Your task to perform on an android device: remove spam from my inbox in the gmail app Image 0: 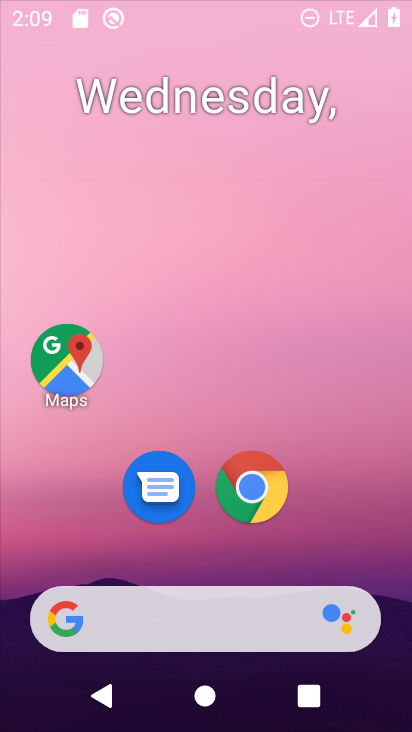
Step 0: click (220, 48)
Your task to perform on an android device: remove spam from my inbox in the gmail app Image 1: 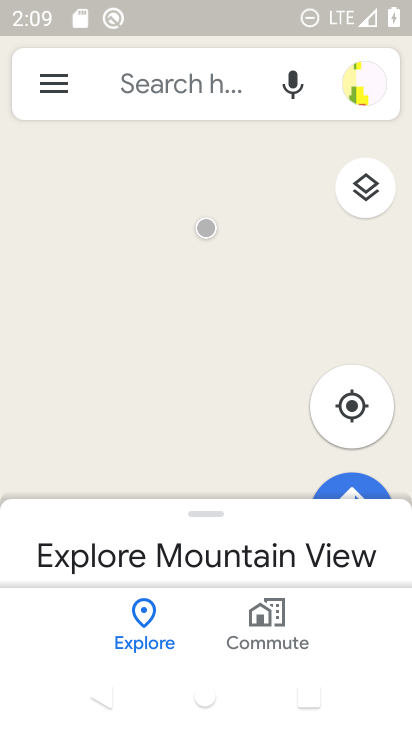
Step 1: press home button
Your task to perform on an android device: remove spam from my inbox in the gmail app Image 2: 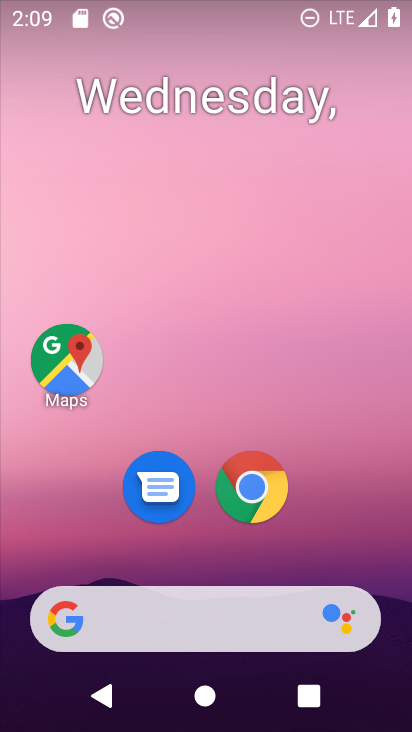
Step 2: drag from (401, 617) to (229, 80)
Your task to perform on an android device: remove spam from my inbox in the gmail app Image 3: 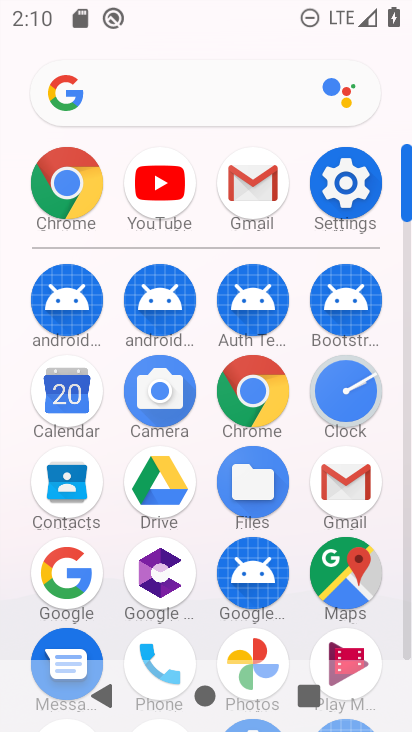
Step 3: click (339, 476)
Your task to perform on an android device: remove spam from my inbox in the gmail app Image 4: 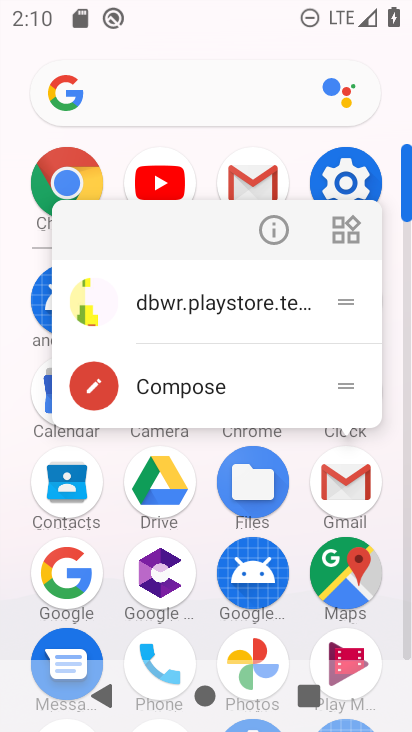
Step 4: click (356, 496)
Your task to perform on an android device: remove spam from my inbox in the gmail app Image 5: 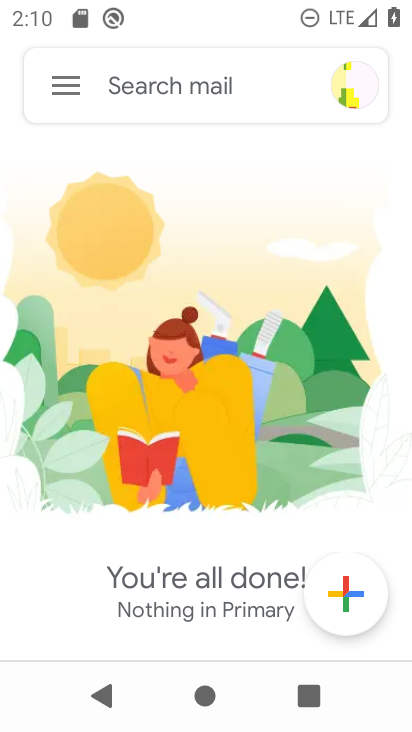
Step 5: click (60, 78)
Your task to perform on an android device: remove spam from my inbox in the gmail app Image 6: 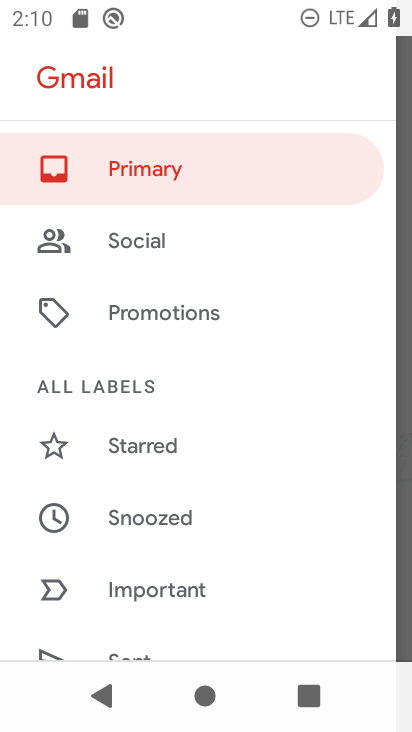
Step 6: drag from (155, 631) to (290, 163)
Your task to perform on an android device: remove spam from my inbox in the gmail app Image 7: 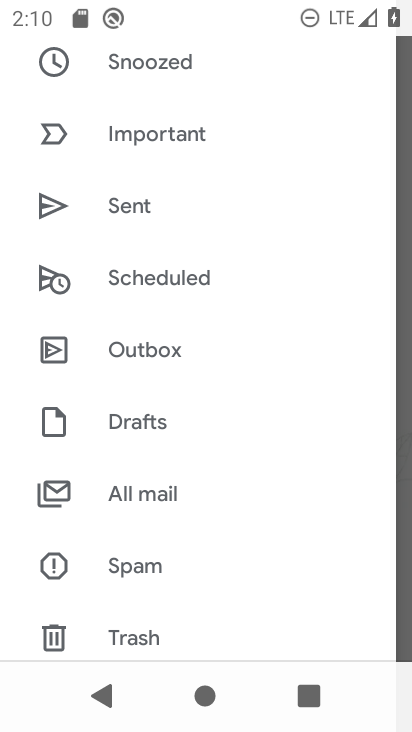
Step 7: click (174, 569)
Your task to perform on an android device: remove spam from my inbox in the gmail app Image 8: 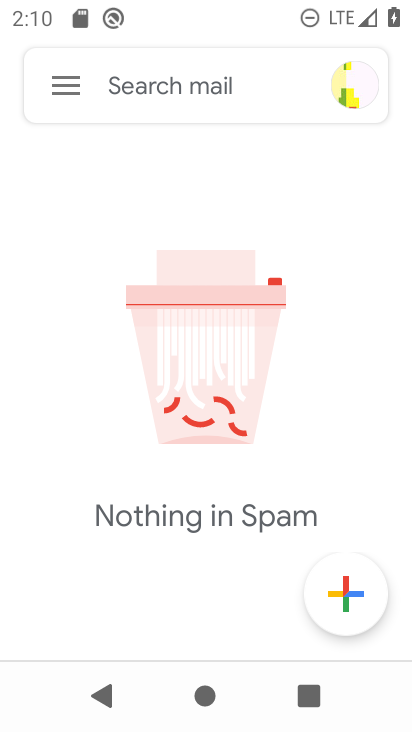
Step 8: task complete